Your task to perform on an android device: Open Youtube and go to "Your channel" Image 0: 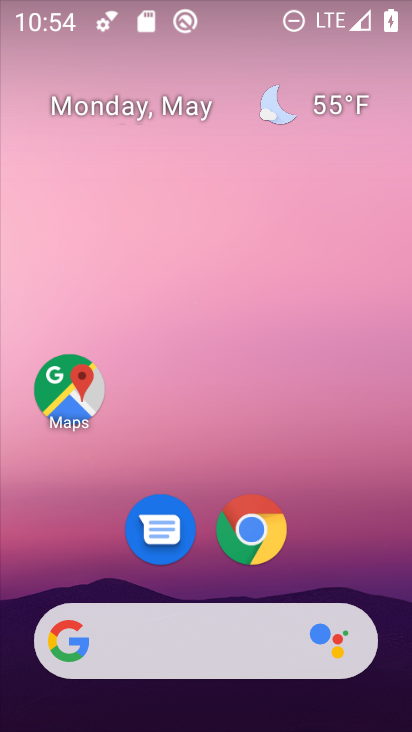
Step 0: drag from (184, 620) to (113, 2)
Your task to perform on an android device: Open Youtube and go to "Your channel" Image 1: 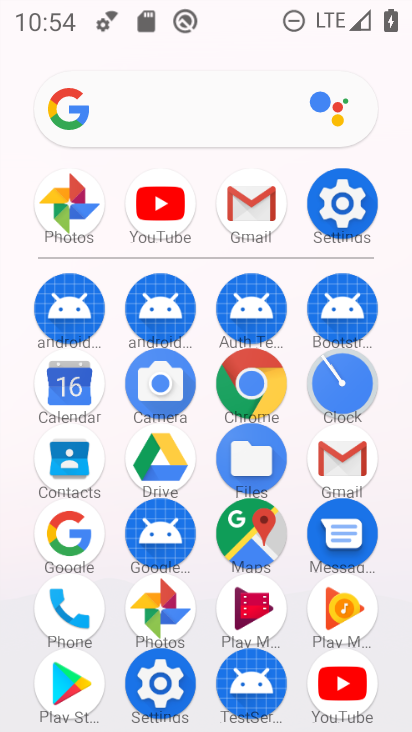
Step 1: click (335, 685)
Your task to perform on an android device: Open Youtube and go to "Your channel" Image 2: 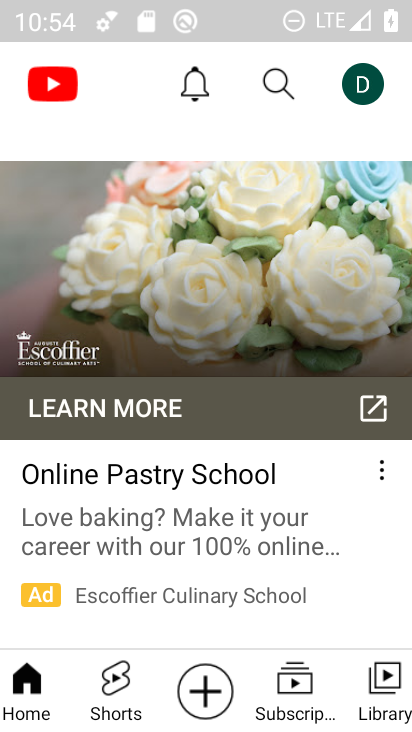
Step 2: click (364, 82)
Your task to perform on an android device: Open Youtube and go to "Your channel" Image 3: 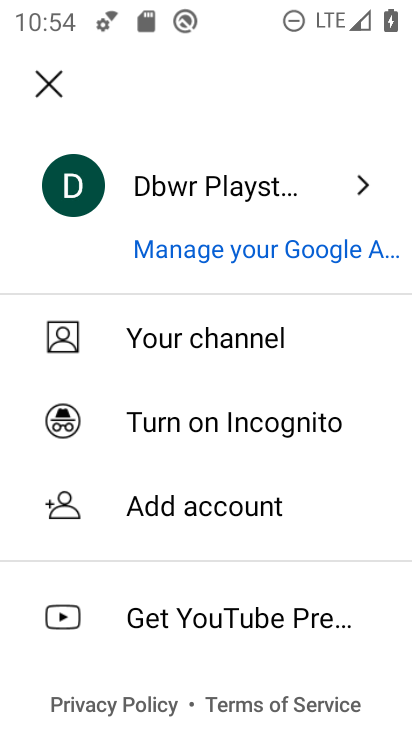
Step 3: click (141, 345)
Your task to perform on an android device: Open Youtube and go to "Your channel" Image 4: 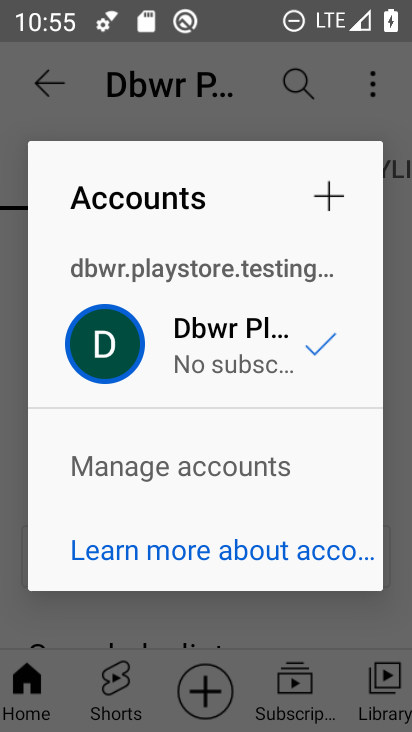
Step 4: click (225, 347)
Your task to perform on an android device: Open Youtube and go to "Your channel" Image 5: 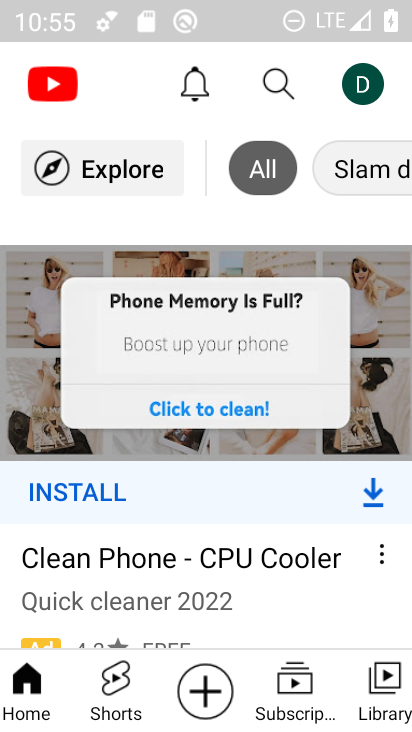
Step 5: task complete